Your task to perform on an android device: toggle notifications settings in the gmail app Image 0: 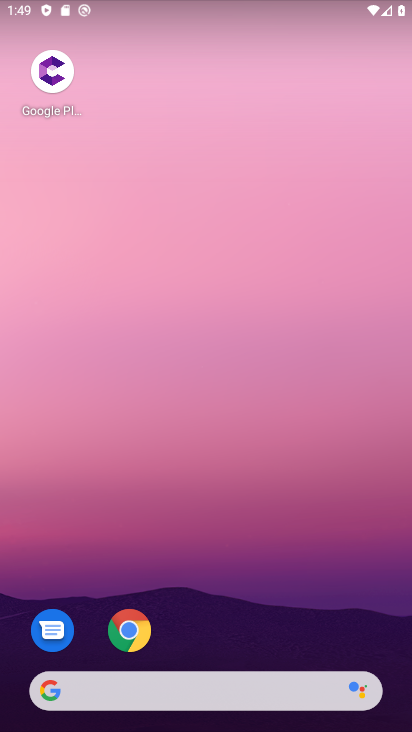
Step 0: drag from (197, 632) to (294, 84)
Your task to perform on an android device: toggle notifications settings in the gmail app Image 1: 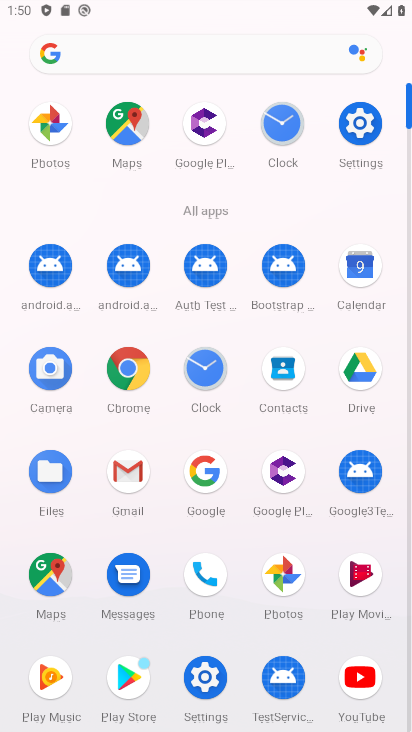
Step 1: click (121, 465)
Your task to perform on an android device: toggle notifications settings in the gmail app Image 2: 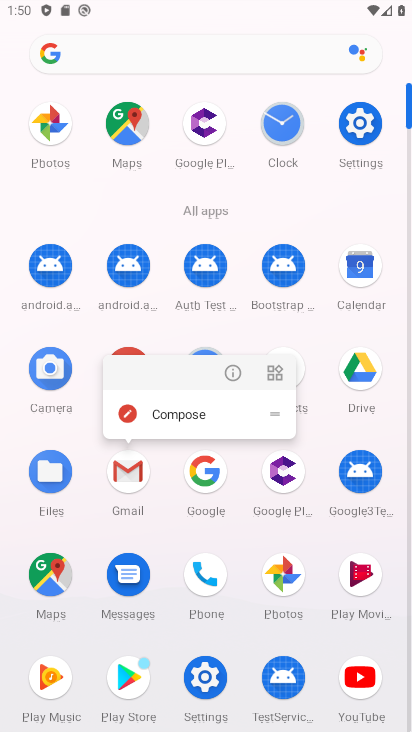
Step 2: click (230, 374)
Your task to perform on an android device: toggle notifications settings in the gmail app Image 3: 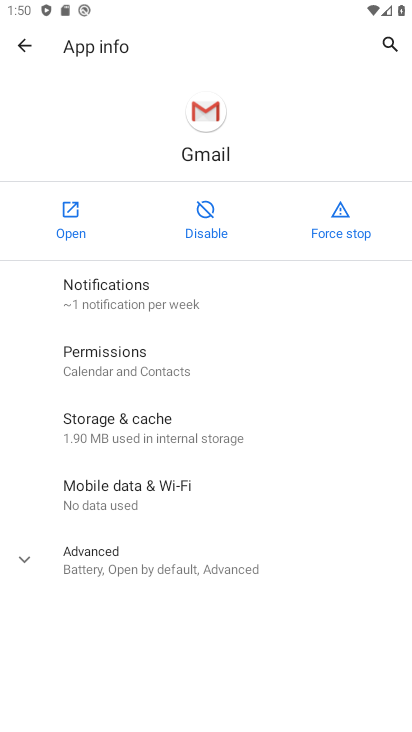
Step 3: click (134, 293)
Your task to perform on an android device: toggle notifications settings in the gmail app Image 4: 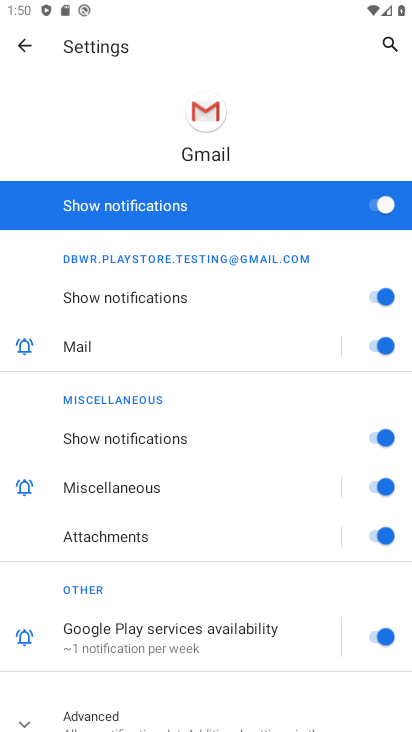
Step 4: click (386, 194)
Your task to perform on an android device: toggle notifications settings in the gmail app Image 5: 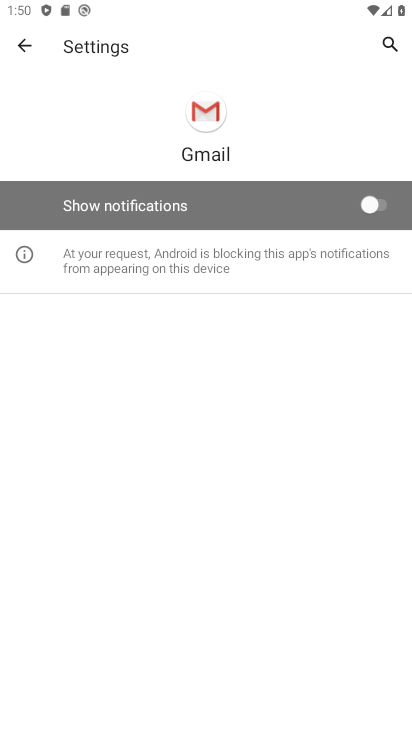
Step 5: task complete